Your task to perform on an android device: Open Chrome and go to the settings page Image 0: 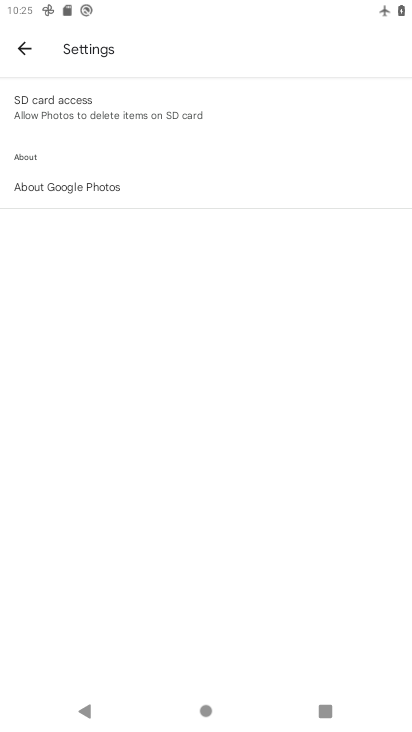
Step 0: press back button
Your task to perform on an android device: Open Chrome and go to the settings page Image 1: 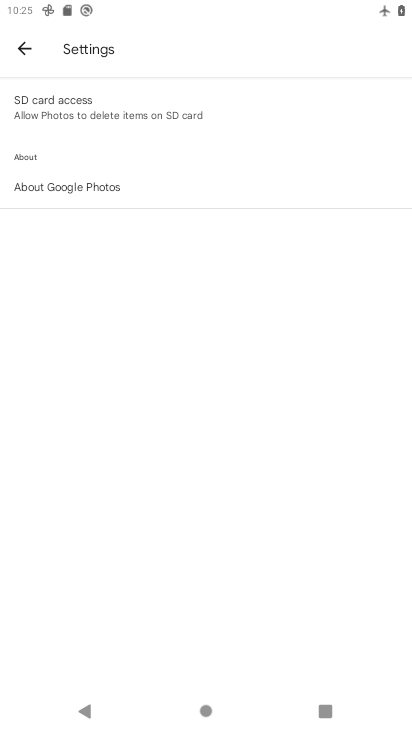
Step 1: press back button
Your task to perform on an android device: Open Chrome and go to the settings page Image 2: 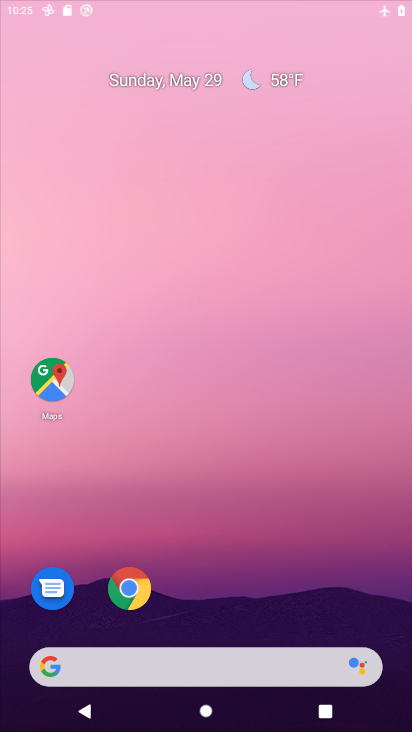
Step 2: press back button
Your task to perform on an android device: Open Chrome and go to the settings page Image 3: 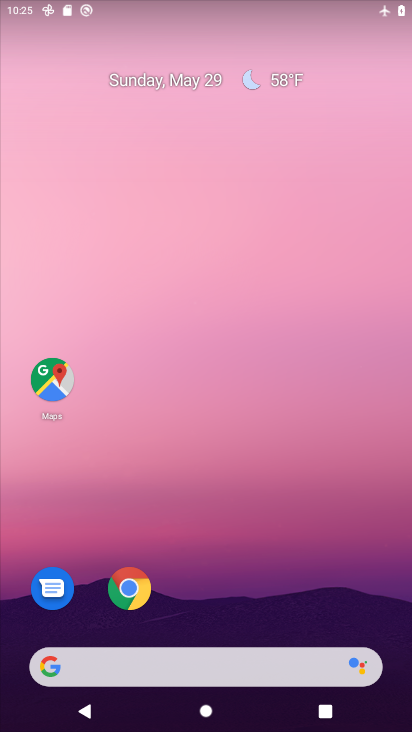
Step 3: drag from (236, 536) to (157, 123)
Your task to perform on an android device: Open Chrome and go to the settings page Image 4: 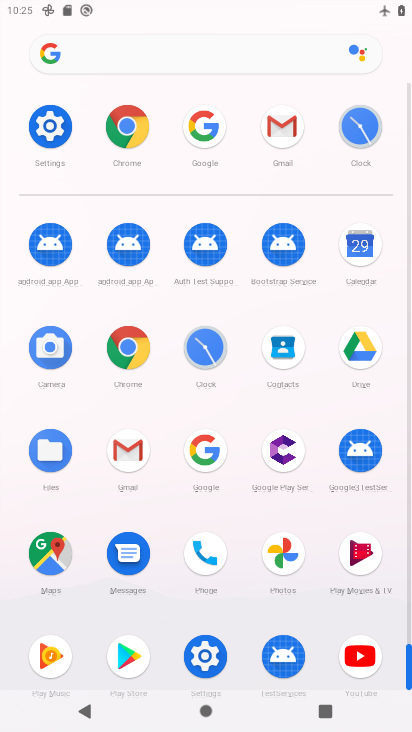
Step 4: click (126, 137)
Your task to perform on an android device: Open Chrome and go to the settings page Image 5: 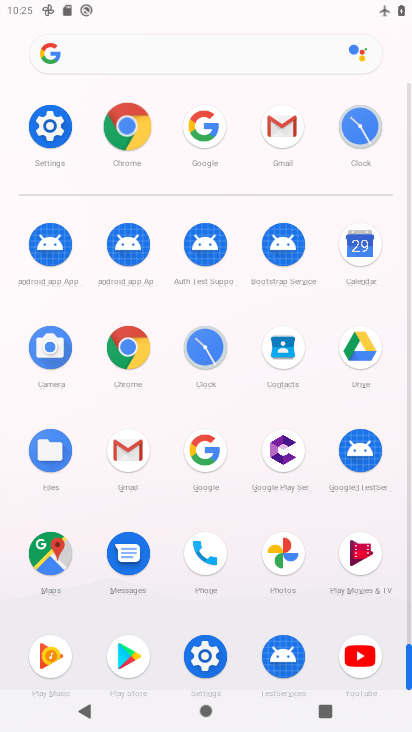
Step 5: click (132, 136)
Your task to perform on an android device: Open Chrome and go to the settings page Image 6: 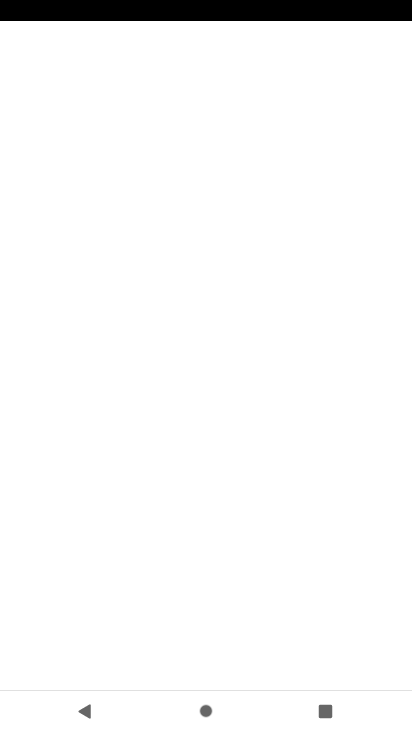
Step 6: click (133, 136)
Your task to perform on an android device: Open Chrome and go to the settings page Image 7: 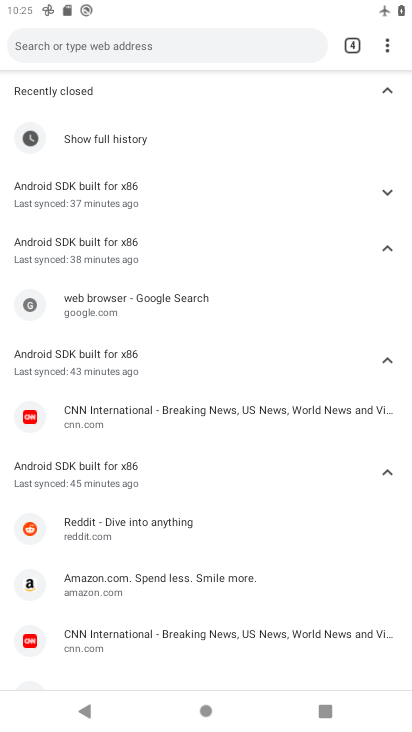
Step 7: drag from (386, 44) to (217, 380)
Your task to perform on an android device: Open Chrome and go to the settings page Image 8: 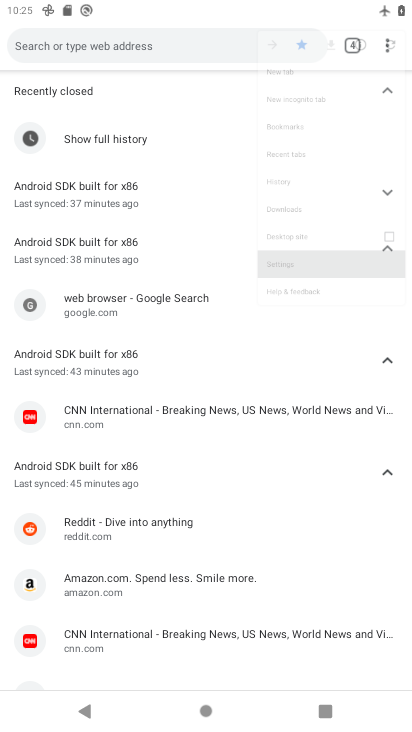
Step 8: click (222, 381)
Your task to perform on an android device: Open Chrome and go to the settings page Image 9: 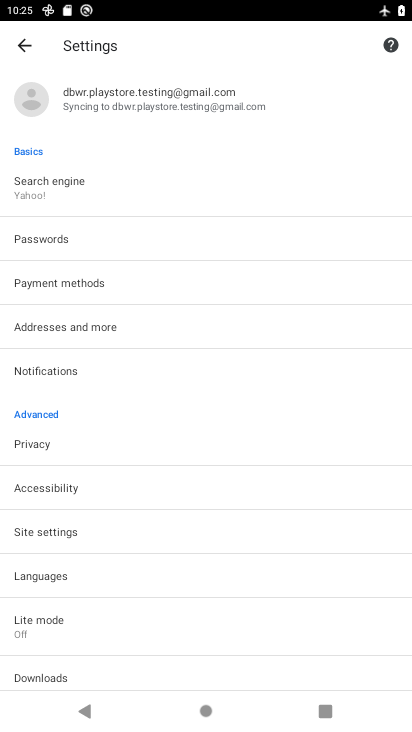
Step 9: task complete